Your task to perform on an android device: turn off improve location accuracy Image 0: 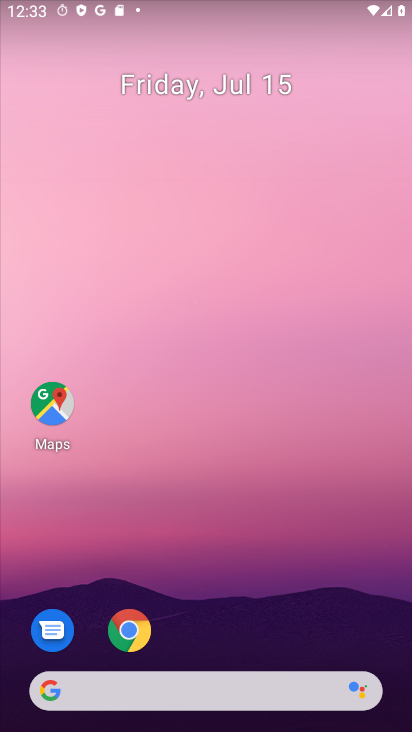
Step 0: drag from (171, 534) to (194, 242)
Your task to perform on an android device: turn off improve location accuracy Image 1: 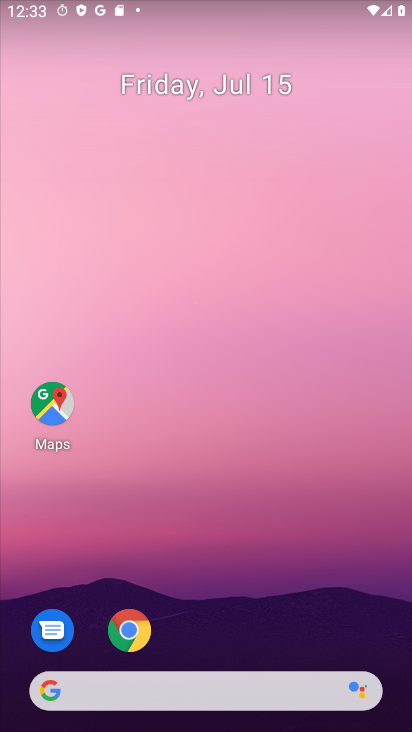
Step 1: drag from (183, 660) to (245, 159)
Your task to perform on an android device: turn off improve location accuracy Image 2: 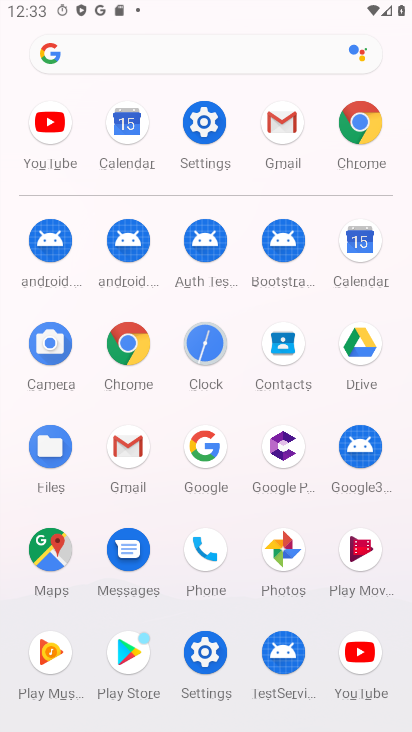
Step 2: click (200, 654)
Your task to perform on an android device: turn off improve location accuracy Image 3: 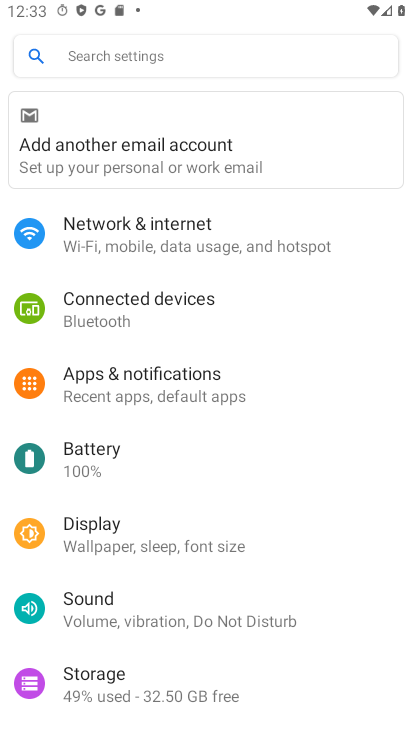
Step 3: drag from (176, 645) to (200, 300)
Your task to perform on an android device: turn off improve location accuracy Image 4: 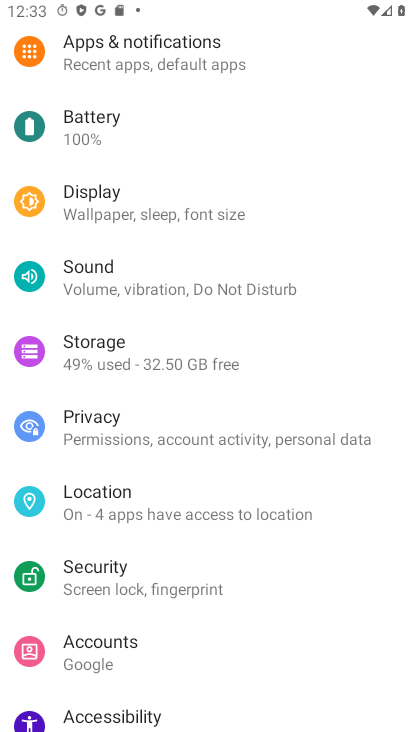
Step 4: click (135, 517)
Your task to perform on an android device: turn off improve location accuracy Image 5: 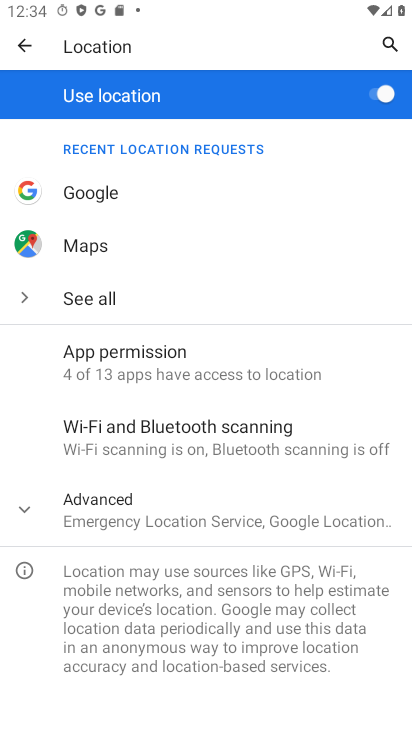
Step 5: drag from (224, 637) to (292, 347)
Your task to perform on an android device: turn off improve location accuracy Image 6: 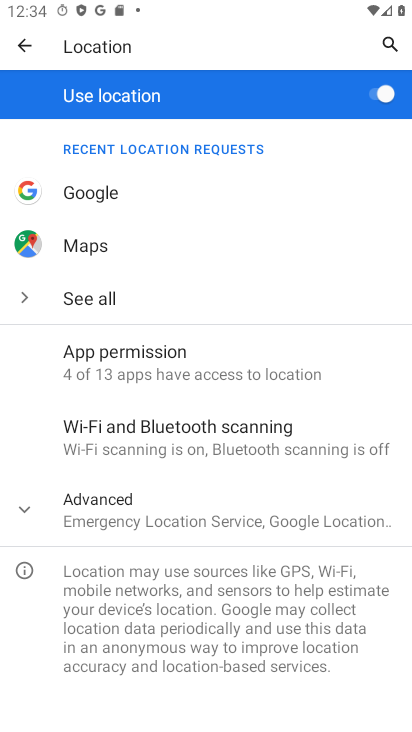
Step 6: click (156, 508)
Your task to perform on an android device: turn off improve location accuracy Image 7: 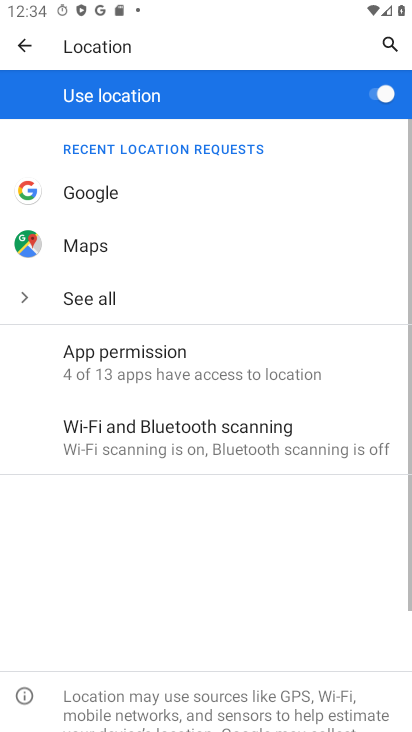
Step 7: drag from (156, 508) to (288, 217)
Your task to perform on an android device: turn off improve location accuracy Image 8: 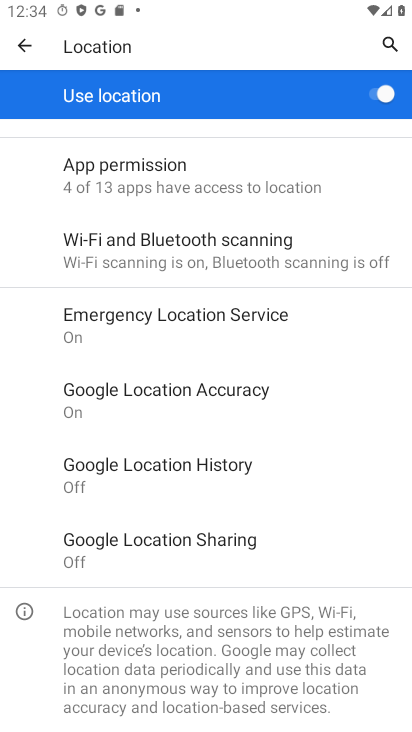
Step 8: click (190, 400)
Your task to perform on an android device: turn off improve location accuracy Image 9: 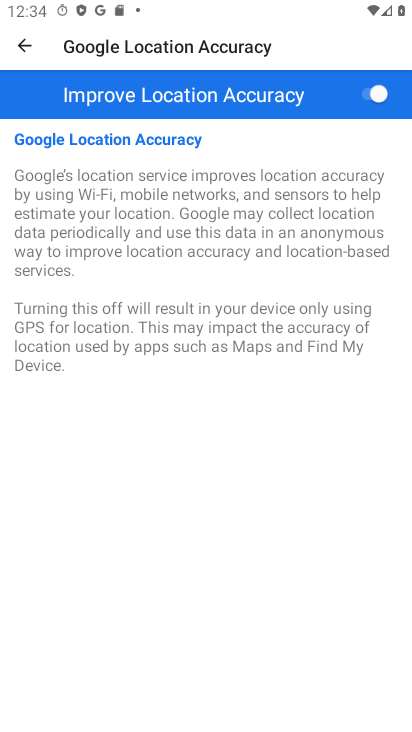
Step 9: click (356, 91)
Your task to perform on an android device: turn off improve location accuracy Image 10: 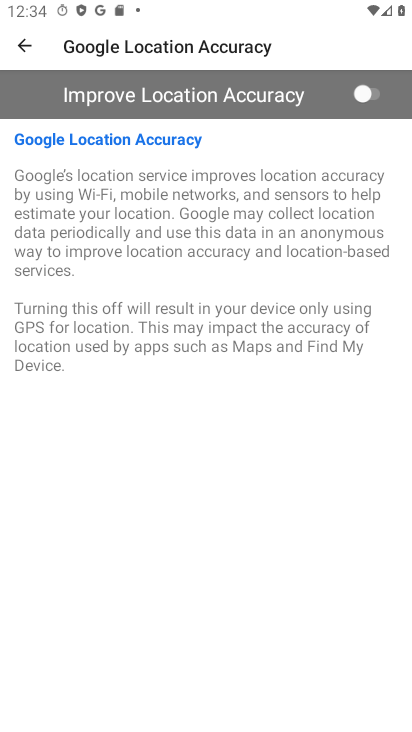
Step 10: task complete